Your task to perform on an android device: Go to accessibility settings Image 0: 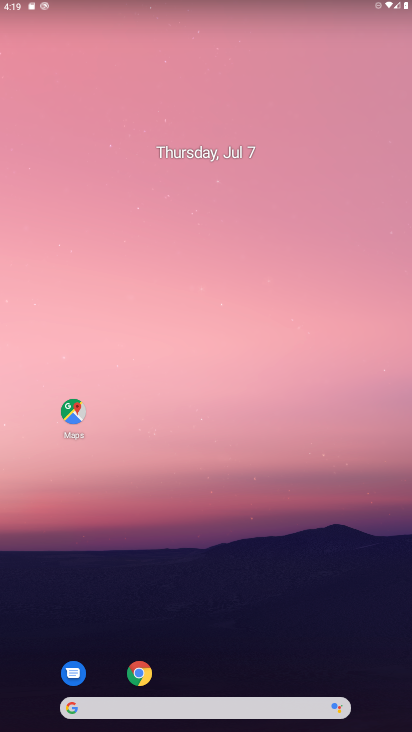
Step 0: drag from (214, 683) to (22, 53)
Your task to perform on an android device: Go to accessibility settings Image 1: 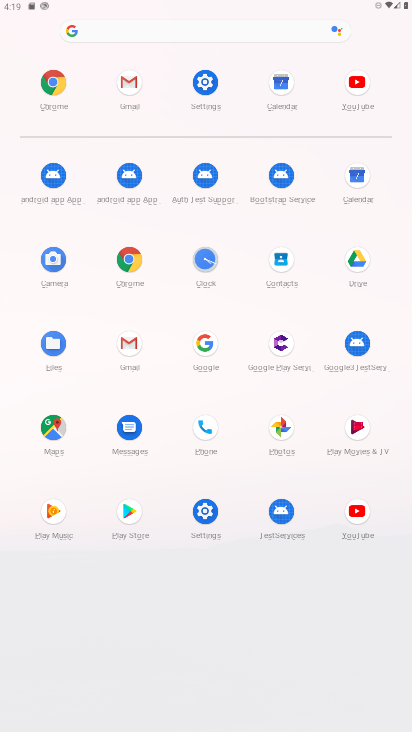
Step 1: click (201, 109)
Your task to perform on an android device: Go to accessibility settings Image 2: 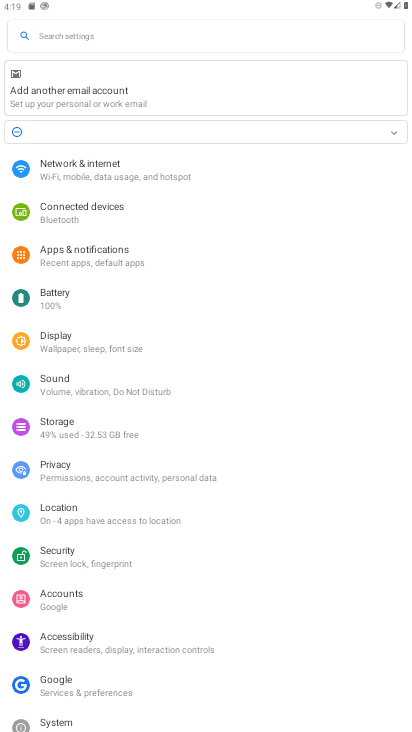
Step 2: click (101, 640)
Your task to perform on an android device: Go to accessibility settings Image 3: 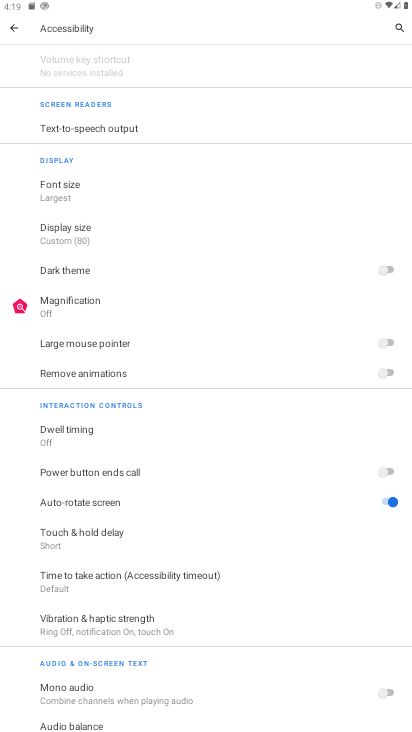
Step 3: task complete